Your task to perform on an android device: turn on translation in the chrome app Image 0: 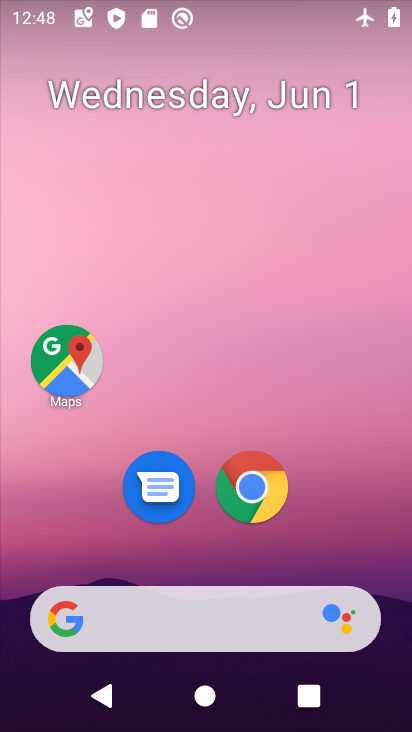
Step 0: click (264, 487)
Your task to perform on an android device: turn on translation in the chrome app Image 1: 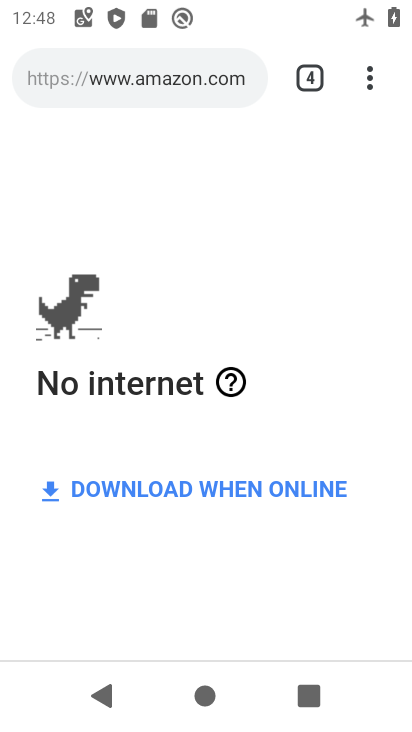
Step 1: click (380, 58)
Your task to perform on an android device: turn on translation in the chrome app Image 2: 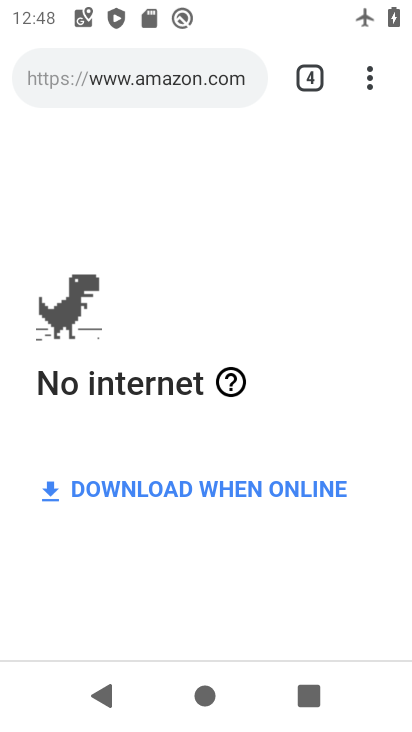
Step 2: click (367, 63)
Your task to perform on an android device: turn on translation in the chrome app Image 3: 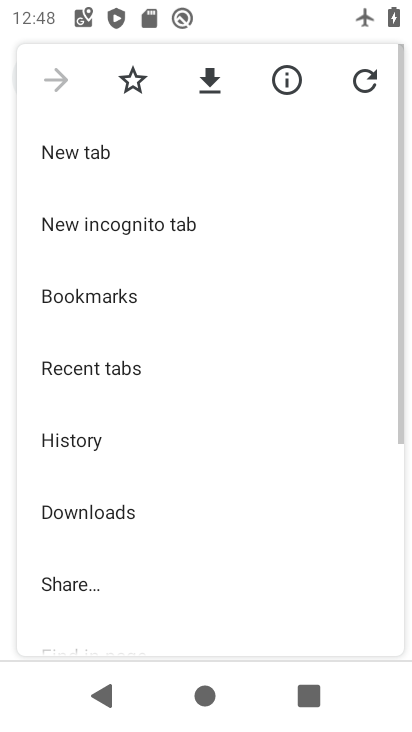
Step 3: drag from (116, 568) to (144, 285)
Your task to perform on an android device: turn on translation in the chrome app Image 4: 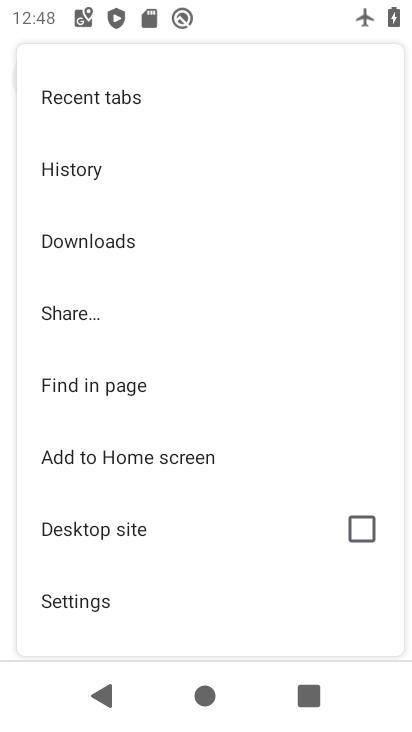
Step 4: click (116, 591)
Your task to perform on an android device: turn on translation in the chrome app Image 5: 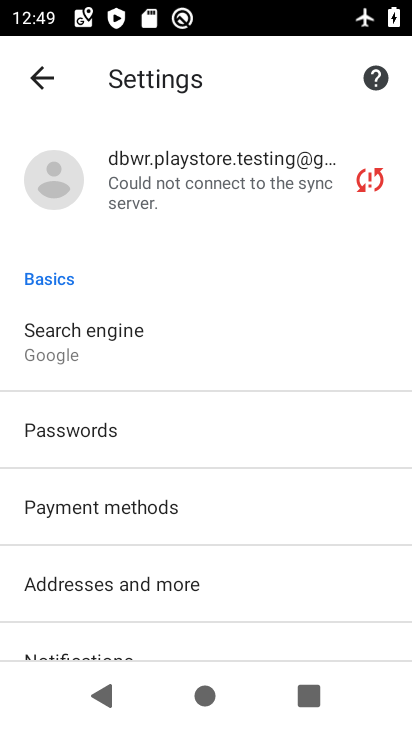
Step 5: drag from (169, 481) to (201, 216)
Your task to perform on an android device: turn on translation in the chrome app Image 6: 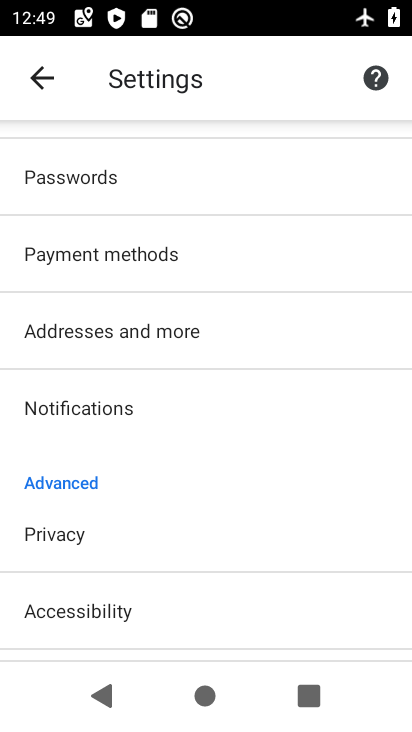
Step 6: drag from (162, 559) to (150, 237)
Your task to perform on an android device: turn on translation in the chrome app Image 7: 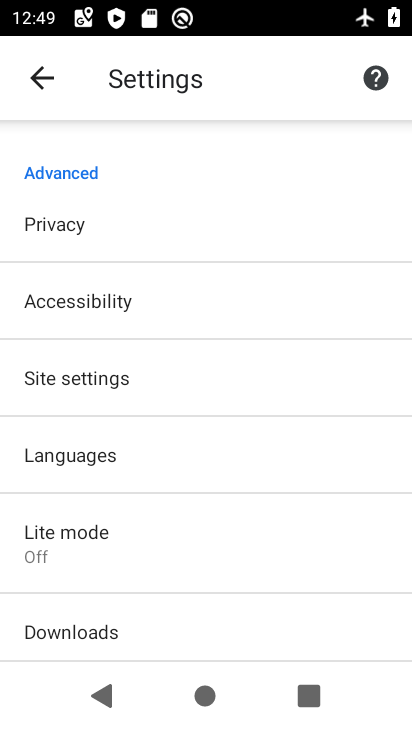
Step 7: click (115, 537)
Your task to perform on an android device: turn on translation in the chrome app Image 8: 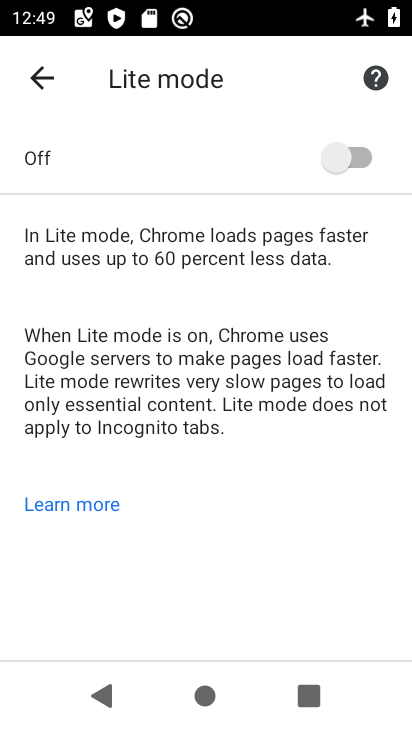
Step 8: click (349, 156)
Your task to perform on an android device: turn on translation in the chrome app Image 9: 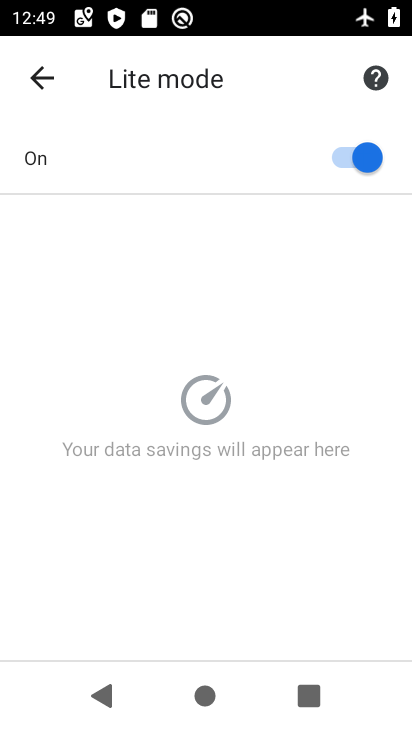
Step 9: task complete